Your task to perform on an android device: Go to notification settings Image 0: 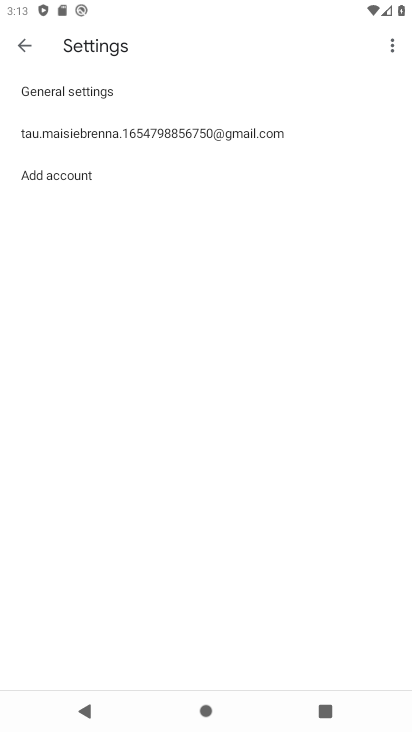
Step 0: press home button
Your task to perform on an android device: Go to notification settings Image 1: 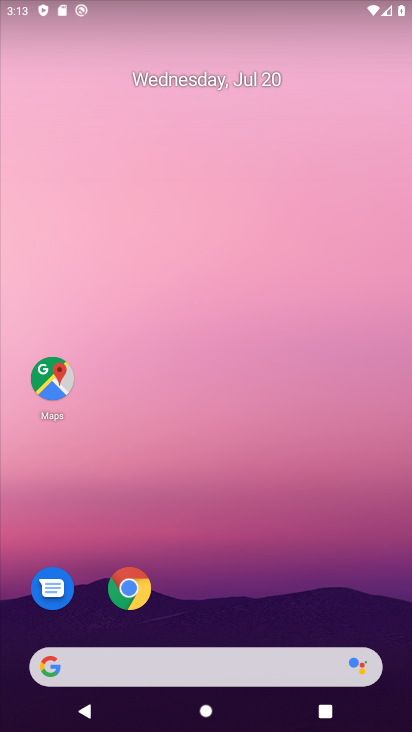
Step 1: drag from (294, 592) to (228, 94)
Your task to perform on an android device: Go to notification settings Image 2: 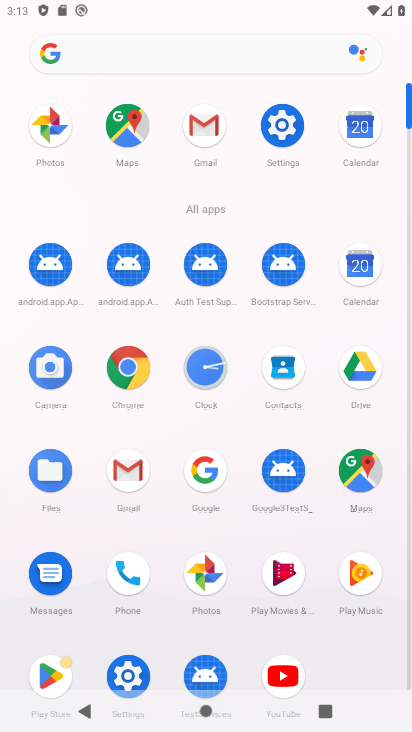
Step 2: click (283, 120)
Your task to perform on an android device: Go to notification settings Image 3: 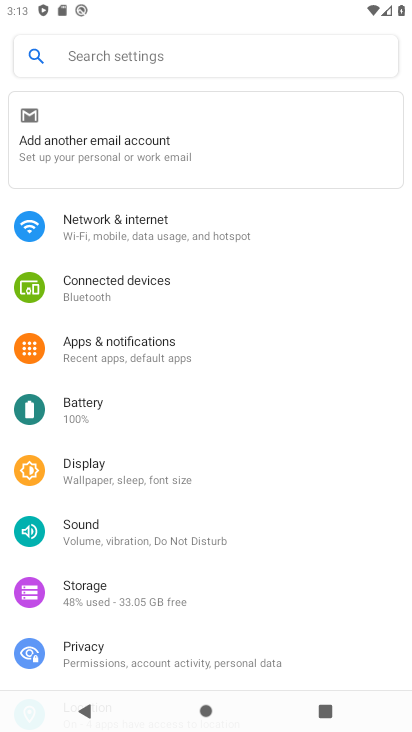
Step 3: click (117, 251)
Your task to perform on an android device: Go to notification settings Image 4: 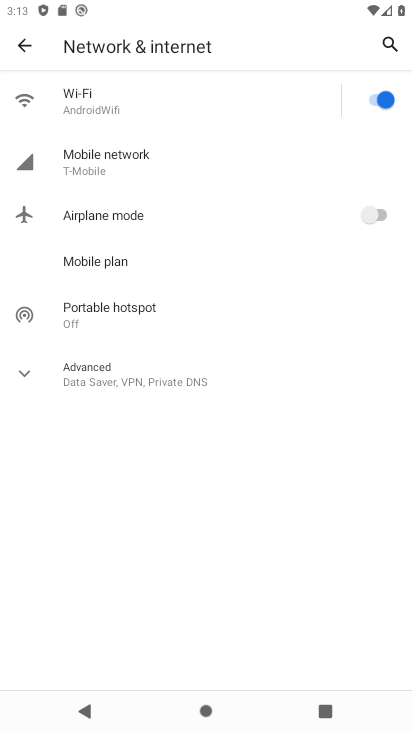
Step 4: press back button
Your task to perform on an android device: Go to notification settings Image 5: 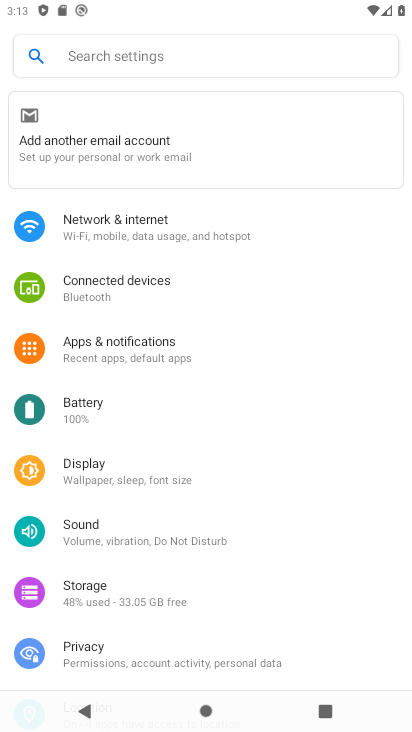
Step 5: click (147, 349)
Your task to perform on an android device: Go to notification settings Image 6: 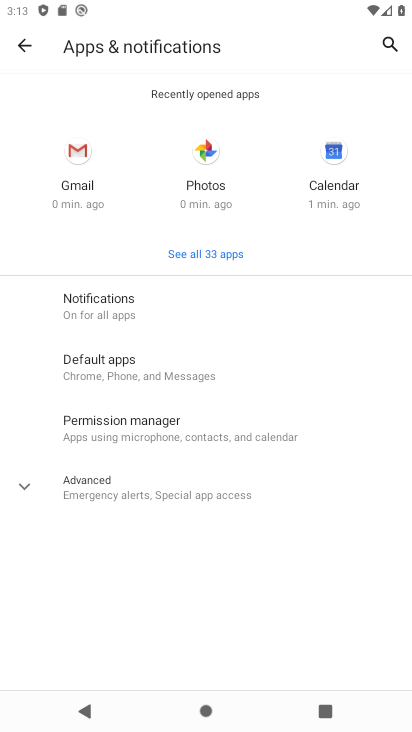
Step 6: click (165, 307)
Your task to perform on an android device: Go to notification settings Image 7: 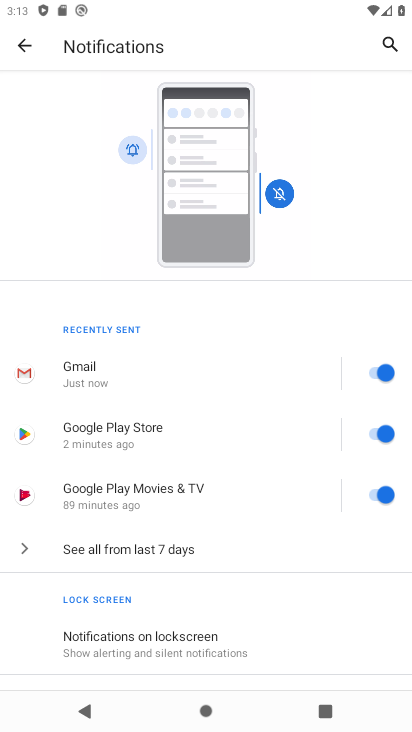
Step 7: task complete